Your task to perform on an android device: clear history in the chrome app Image 0: 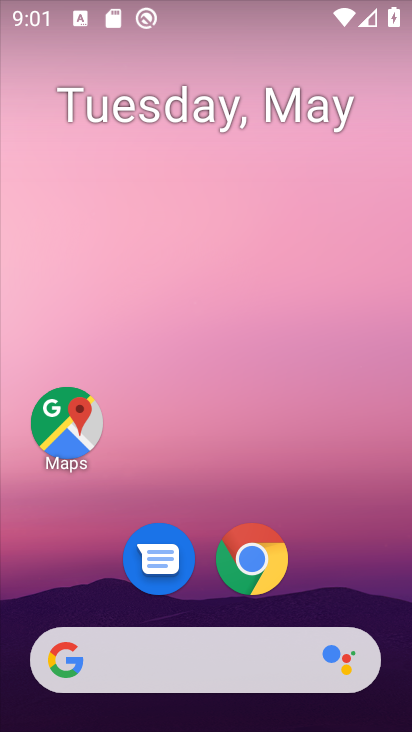
Step 0: click (250, 570)
Your task to perform on an android device: clear history in the chrome app Image 1: 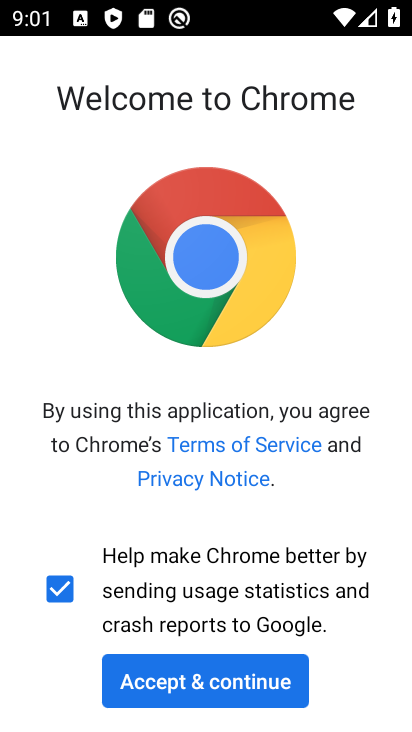
Step 1: click (180, 688)
Your task to perform on an android device: clear history in the chrome app Image 2: 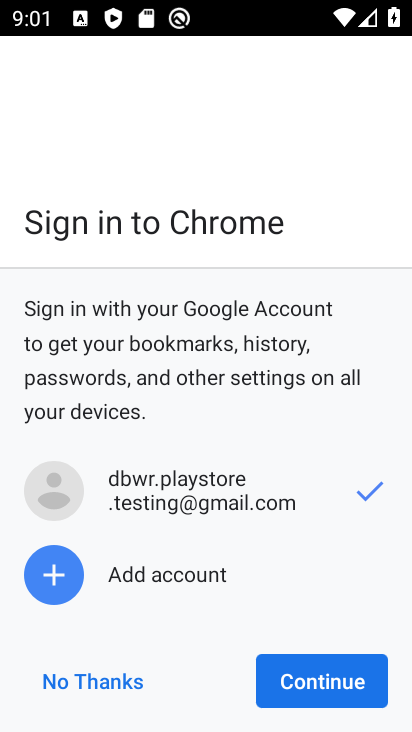
Step 2: click (317, 663)
Your task to perform on an android device: clear history in the chrome app Image 3: 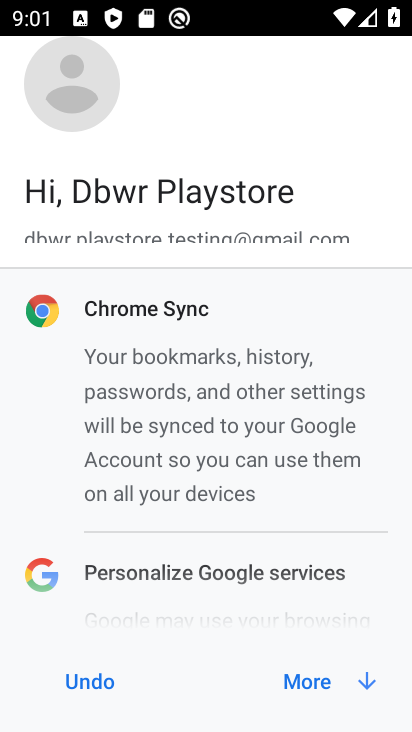
Step 3: click (287, 675)
Your task to perform on an android device: clear history in the chrome app Image 4: 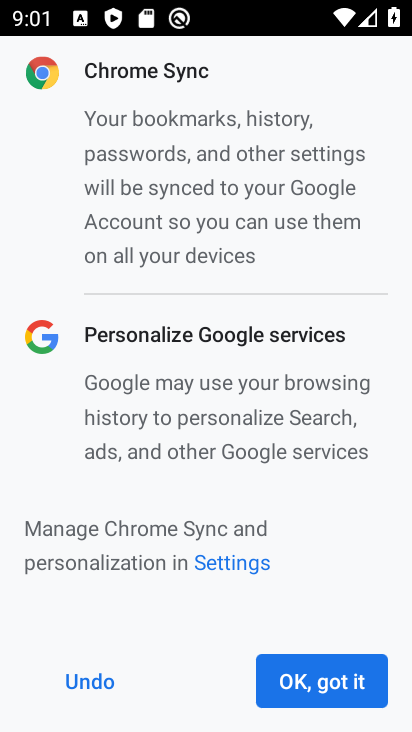
Step 4: click (287, 675)
Your task to perform on an android device: clear history in the chrome app Image 5: 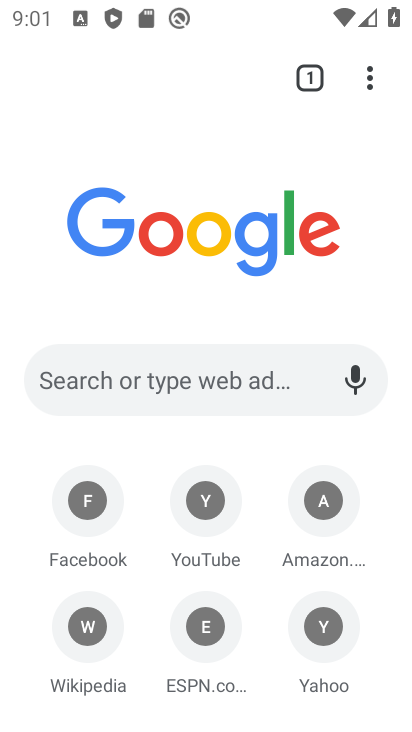
Step 5: task complete